Your task to perform on an android device: Open Youtube and go to the subscriptions tab Image 0: 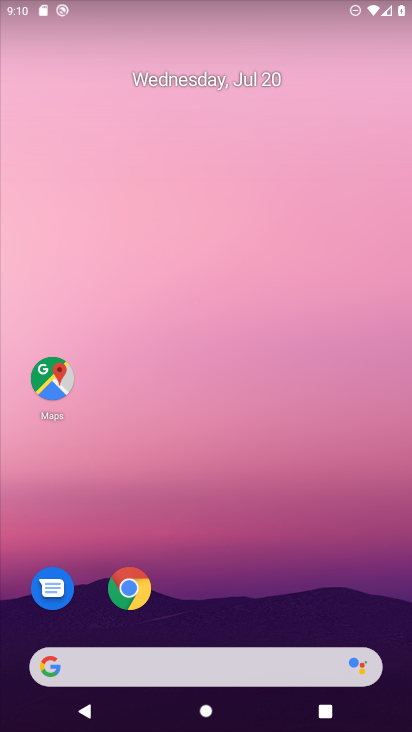
Step 0: drag from (190, 622) to (221, 3)
Your task to perform on an android device: Open Youtube and go to the subscriptions tab Image 1: 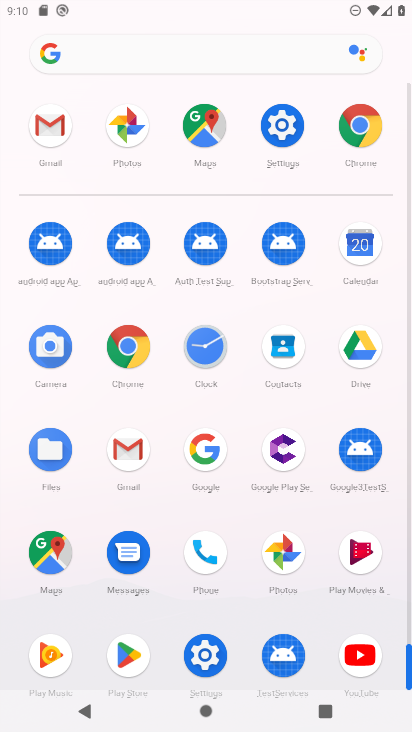
Step 1: click (358, 651)
Your task to perform on an android device: Open Youtube and go to the subscriptions tab Image 2: 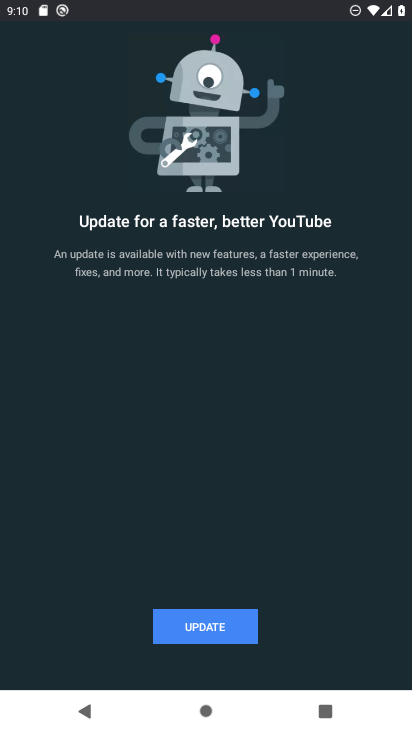
Step 2: click (211, 614)
Your task to perform on an android device: Open Youtube and go to the subscriptions tab Image 3: 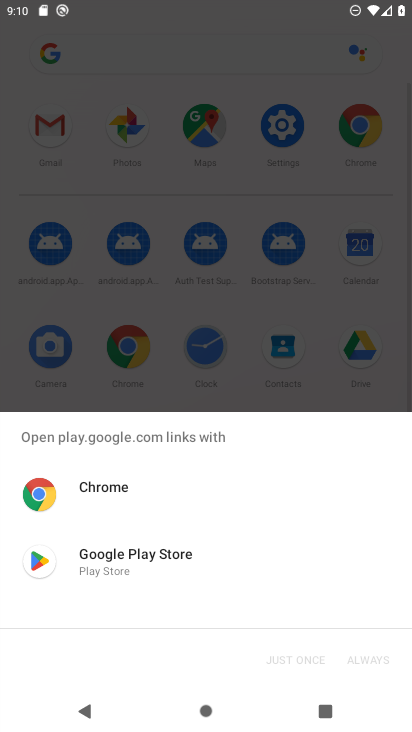
Step 3: click (175, 562)
Your task to perform on an android device: Open Youtube and go to the subscriptions tab Image 4: 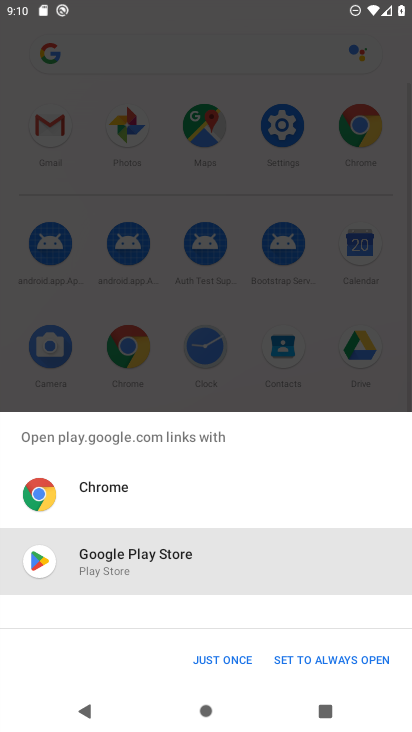
Step 4: click (237, 669)
Your task to perform on an android device: Open Youtube and go to the subscriptions tab Image 5: 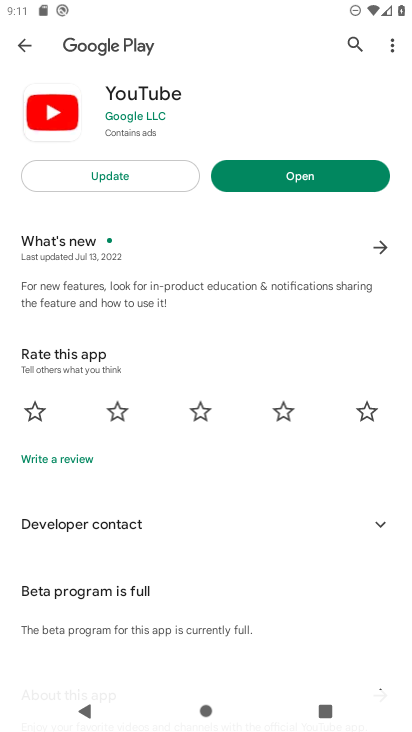
Step 5: click (250, 181)
Your task to perform on an android device: Open Youtube and go to the subscriptions tab Image 6: 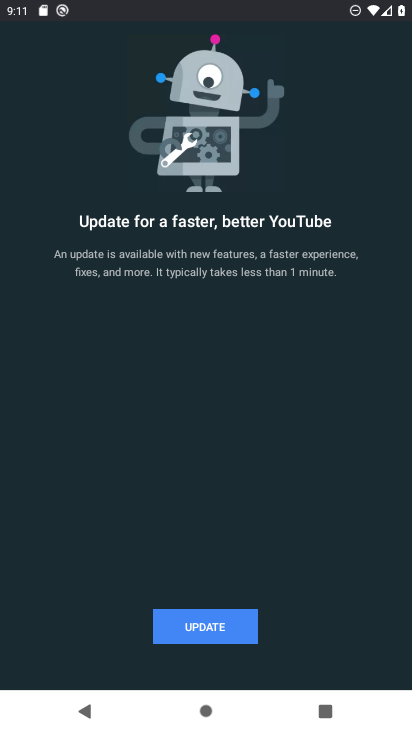
Step 6: click (207, 635)
Your task to perform on an android device: Open Youtube and go to the subscriptions tab Image 7: 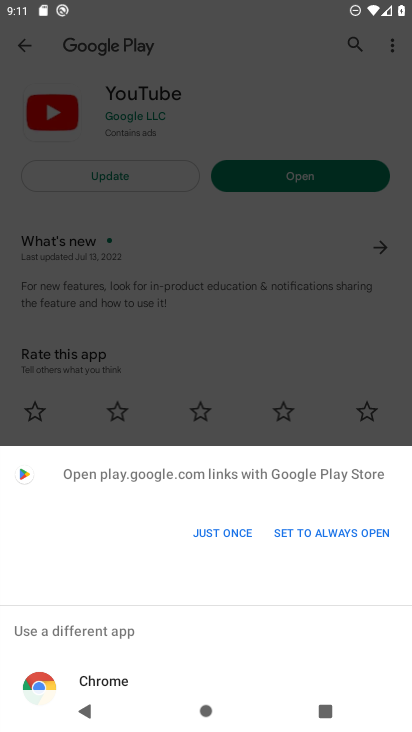
Step 7: click (208, 548)
Your task to perform on an android device: Open Youtube and go to the subscriptions tab Image 8: 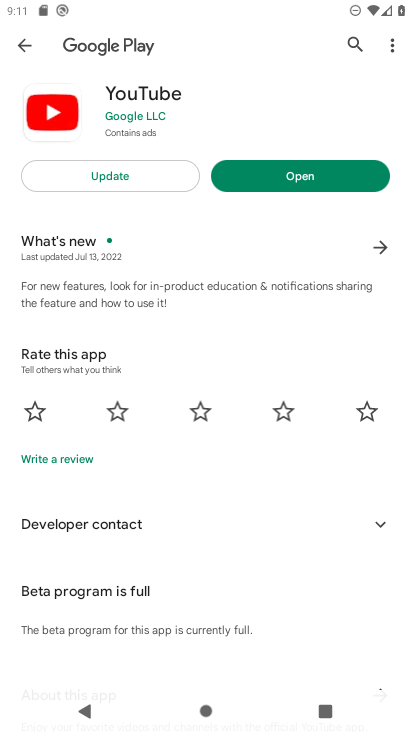
Step 8: click (111, 177)
Your task to perform on an android device: Open Youtube and go to the subscriptions tab Image 9: 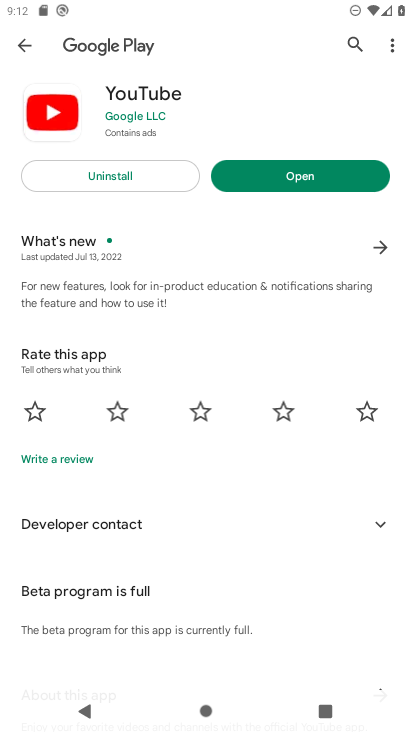
Step 9: click (354, 180)
Your task to perform on an android device: Open Youtube and go to the subscriptions tab Image 10: 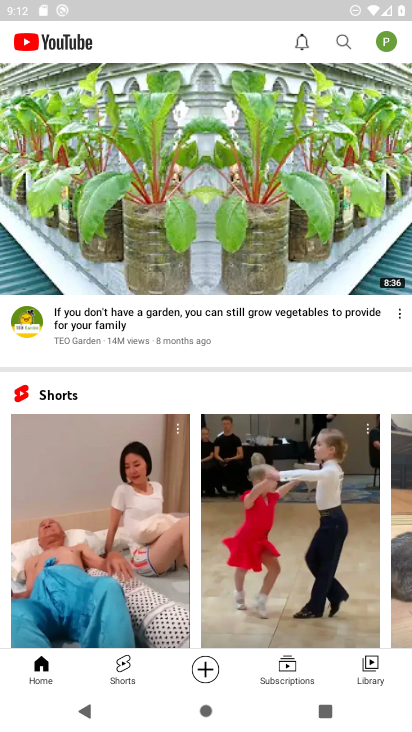
Step 10: click (298, 675)
Your task to perform on an android device: Open Youtube and go to the subscriptions tab Image 11: 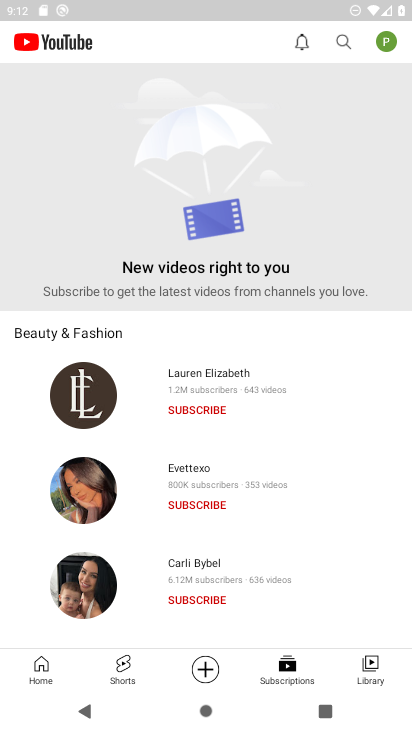
Step 11: task complete